Your task to perform on an android device: turn off data saver in the chrome app Image 0: 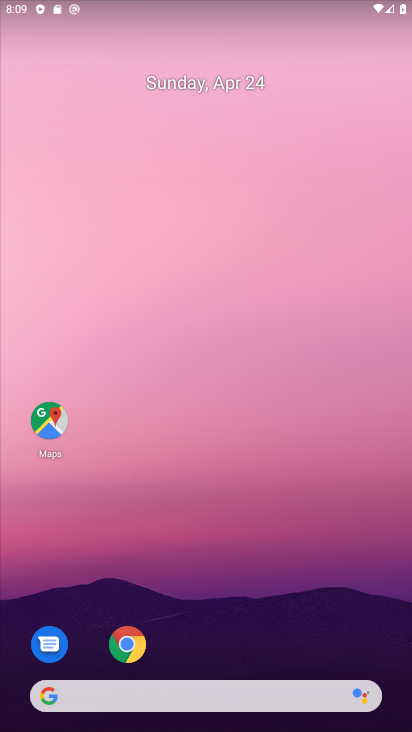
Step 0: drag from (200, 646) to (294, 58)
Your task to perform on an android device: turn off data saver in the chrome app Image 1: 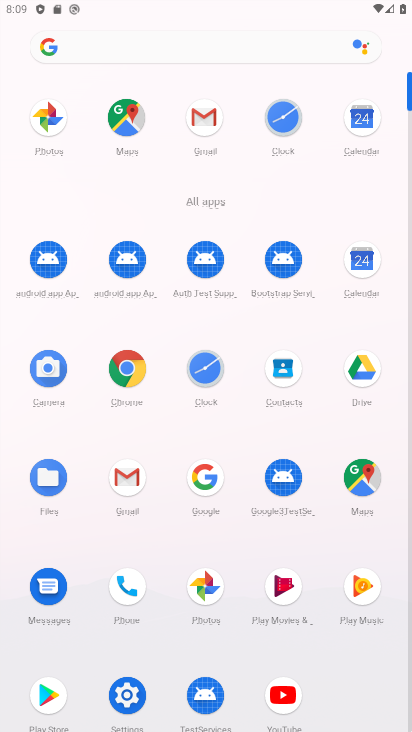
Step 1: click (127, 362)
Your task to perform on an android device: turn off data saver in the chrome app Image 2: 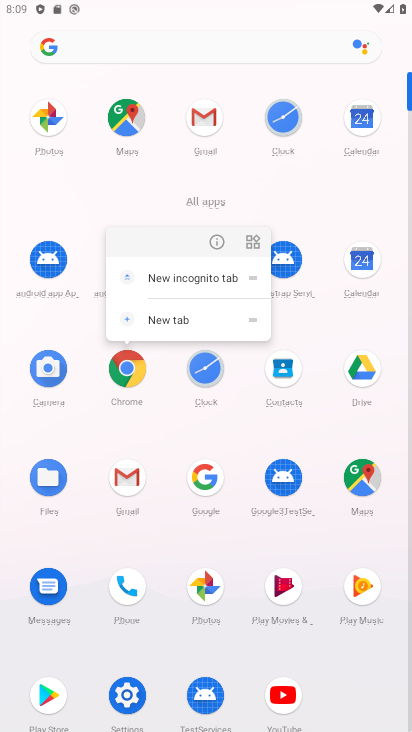
Step 2: click (219, 239)
Your task to perform on an android device: turn off data saver in the chrome app Image 3: 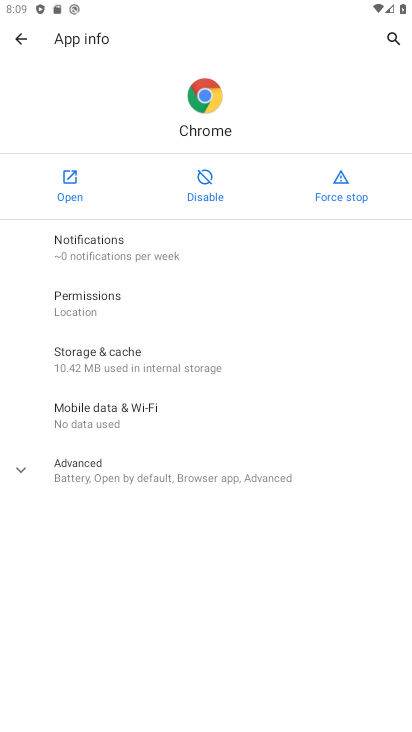
Step 3: click (72, 185)
Your task to perform on an android device: turn off data saver in the chrome app Image 4: 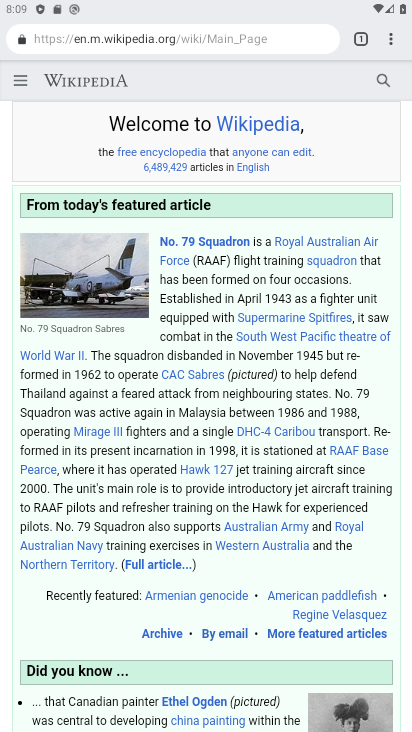
Step 4: drag from (203, 463) to (188, 218)
Your task to perform on an android device: turn off data saver in the chrome app Image 5: 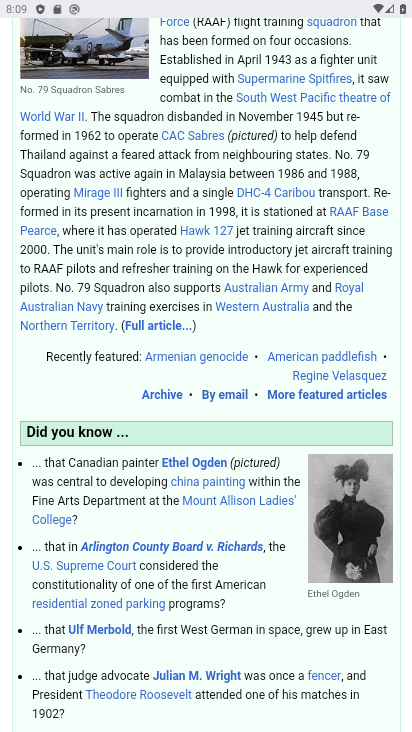
Step 5: drag from (244, 231) to (279, 603)
Your task to perform on an android device: turn off data saver in the chrome app Image 6: 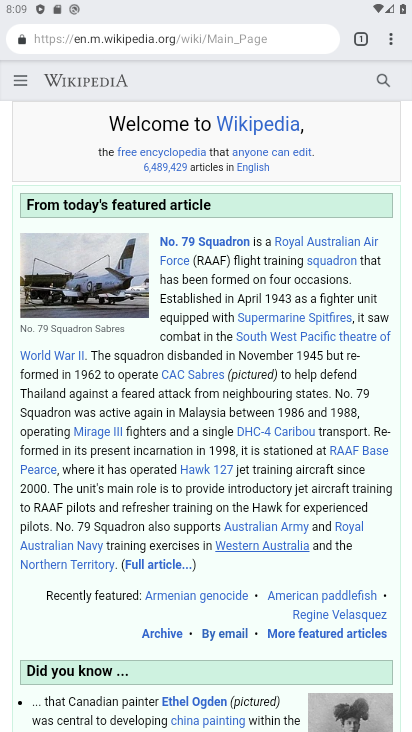
Step 6: drag from (387, 41) to (312, 460)
Your task to perform on an android device: turn off data saver in the chrome app Image 7: 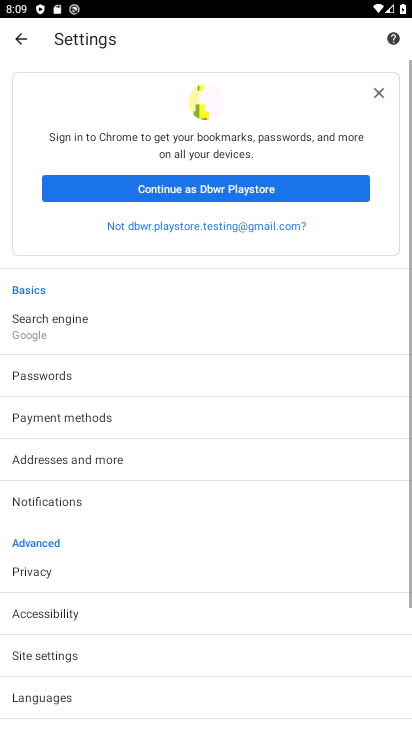
Step 7: drag from (216, 507) to (235, 249)
Your task to perform on an android device: turn off data saver in the chrome app Image 8: 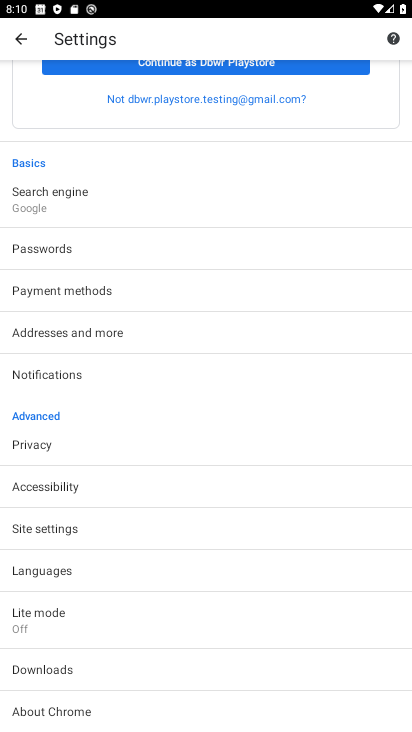
Step 8: click (94, 610)
Your task to perform on an android device: turn off data saver in the chrome app Image 9: 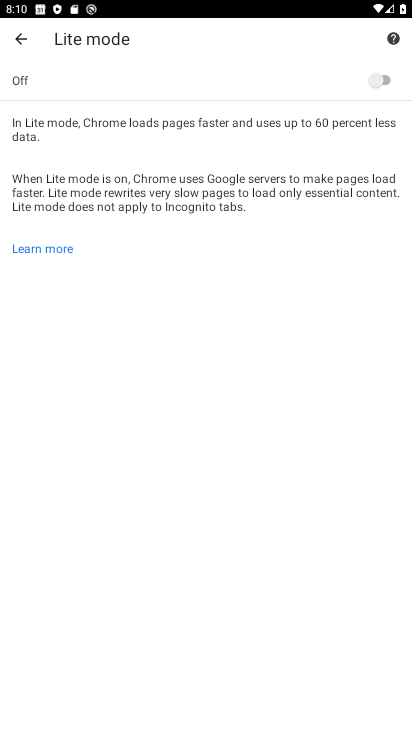
Step 9: click (350, 89)
Your task to perform on an android device: turn off data saver in the chrome app Image 10: 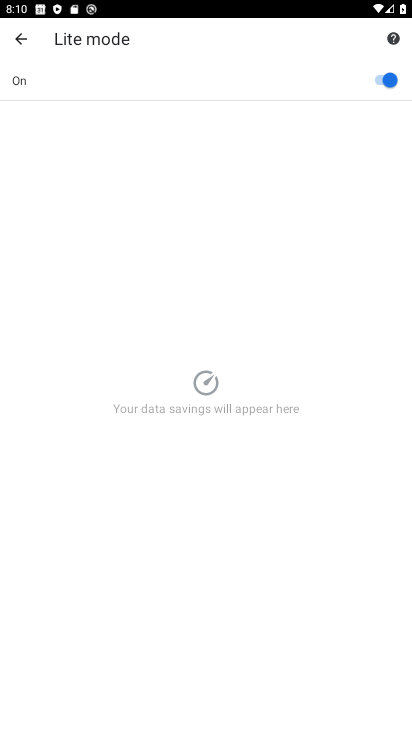
Step 10: task complete